Your task to perform on an android device: show emergency info Image 0: 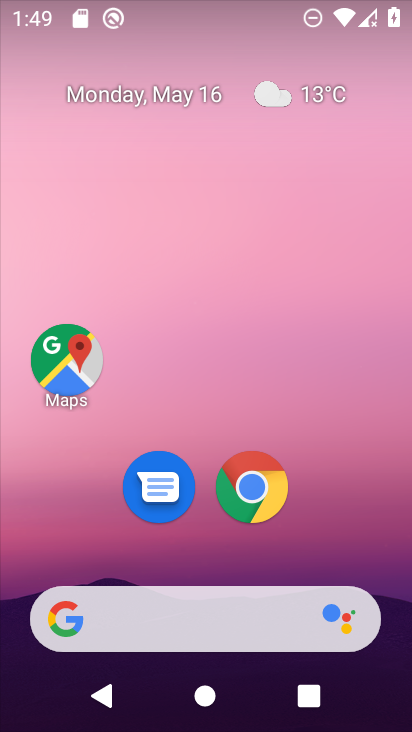
Step 0: drag from (380, 488) to (337, 269)
Your task to perform on an android device: show emergency info Image 1: 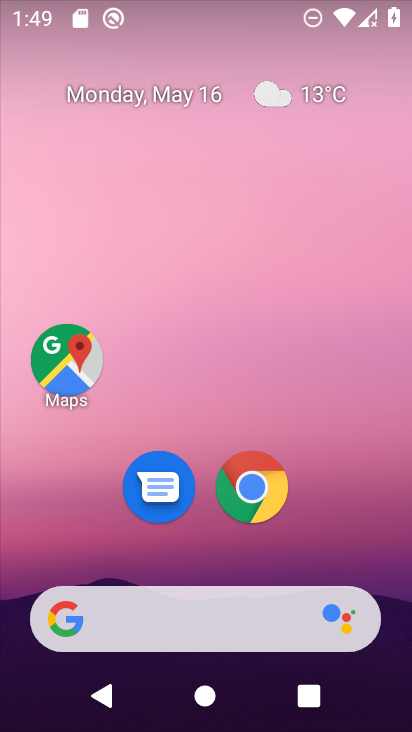
Step 1: drag from (403, 683) to (349, 215)
Your task to perform on an android device: show emergency info Image 2: 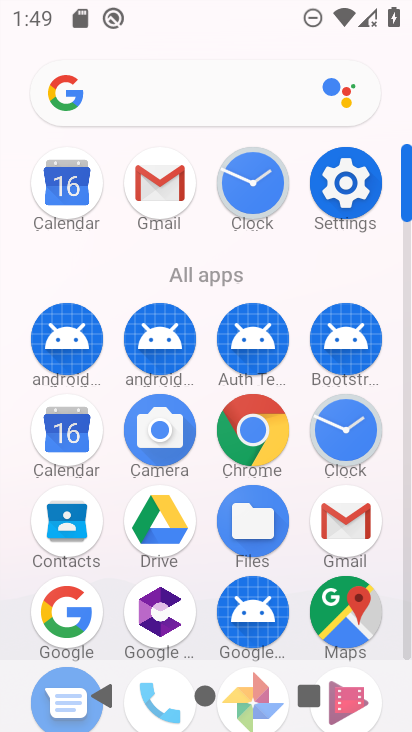
Step 2: click (354, 195)
Your task to perform on an android device: show emergency info Image 3: 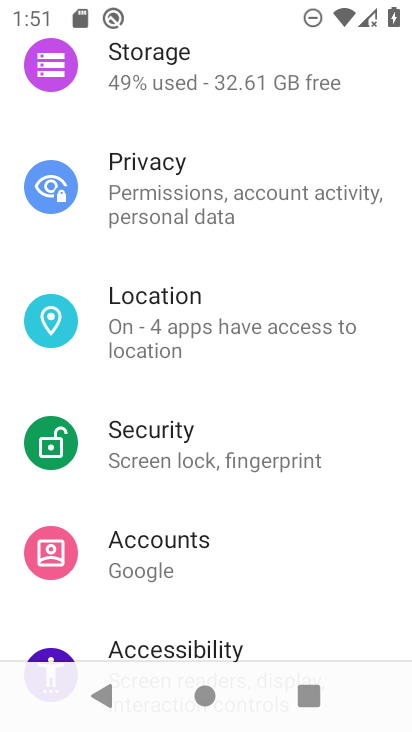
Step 3: click (288, 362)
Your task to perform on an android device: show emergency info Image 4: 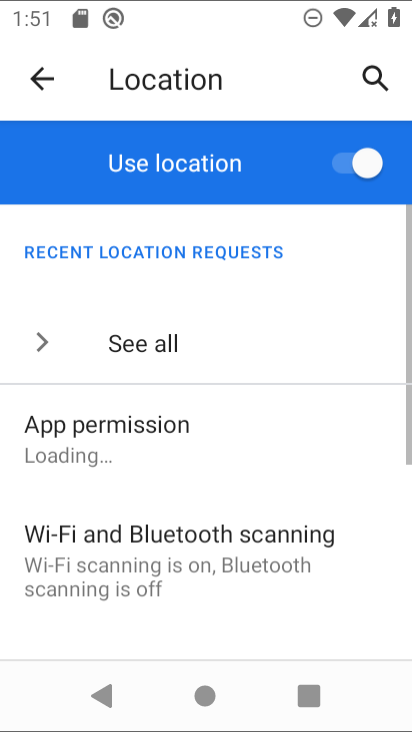
Step 4: drag from (303, 471) to (291, 325)
Your task to perform on an android device: show emergency info Image 5: 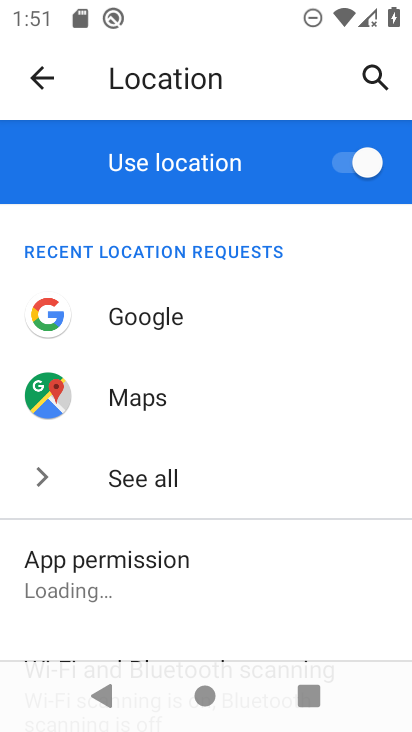
Step 5: click (42, 78)
Your task to perform on an android device: show emergency info Image 6: 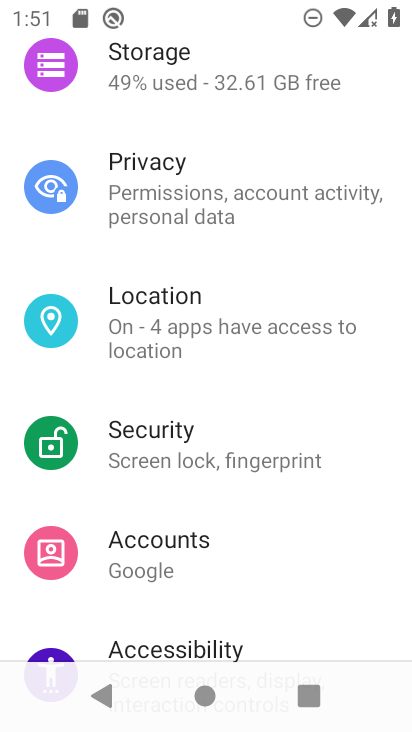
Step 6: drag from (369, 638) to (328, 251)
Your task to perform on an android device: show emergency info Image 7: 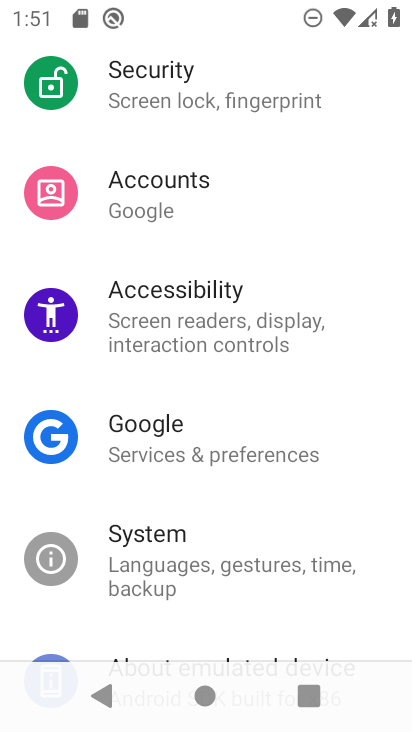
Step 7: drag from (371, 454) to (355, 252)
Your task to perform on an android device: show emergency info Image 8: 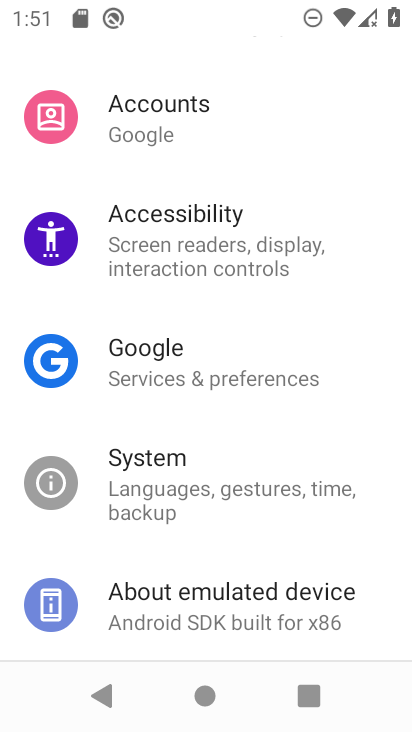
Step 8: drag from (403, 588) to (346, 253)
Your task to perform on an android device: show emergency info Image 9: 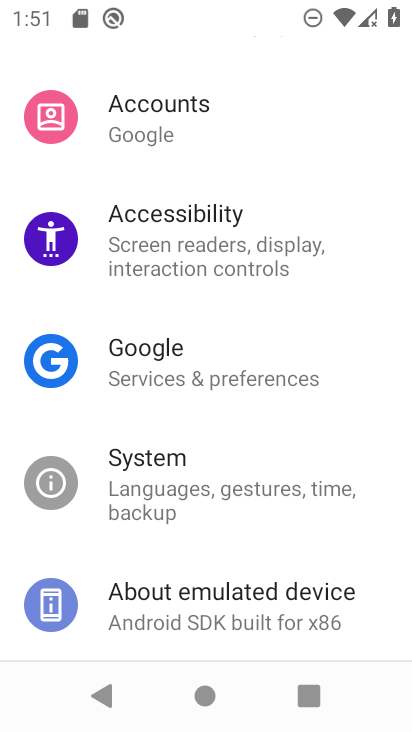
Step 9: click (153, 593)
Your task to perform on an android device: show emergency info Image 10: 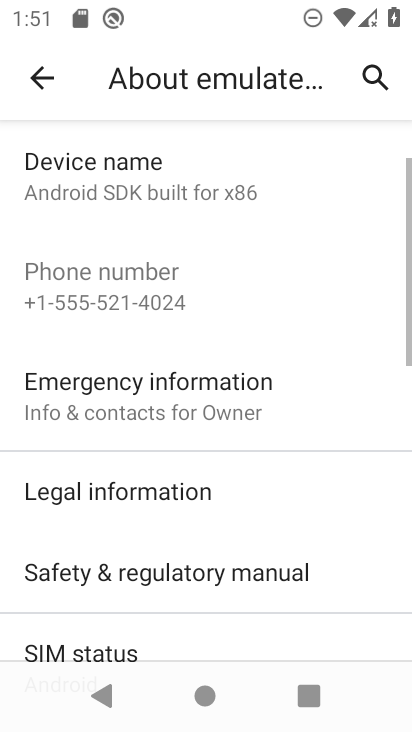
Step 10: click (128, 406)
Your task to perform on an android device: show emergency info Image 11: 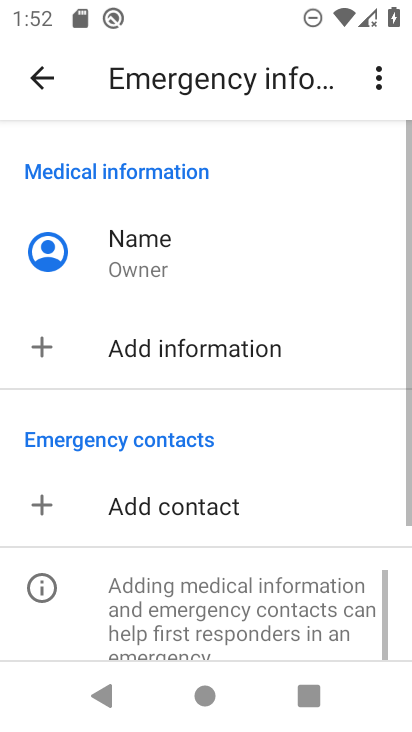
Step 11: task complete